Your task to perform on an android device: Go to display settings Image 0: 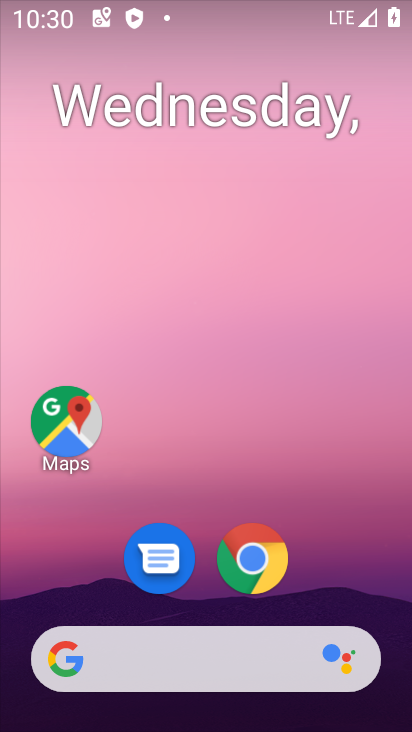
Step 0: drag from (14, 560) to (250, 95)
Your task to perform on an android device: Go to display settings Image 1: 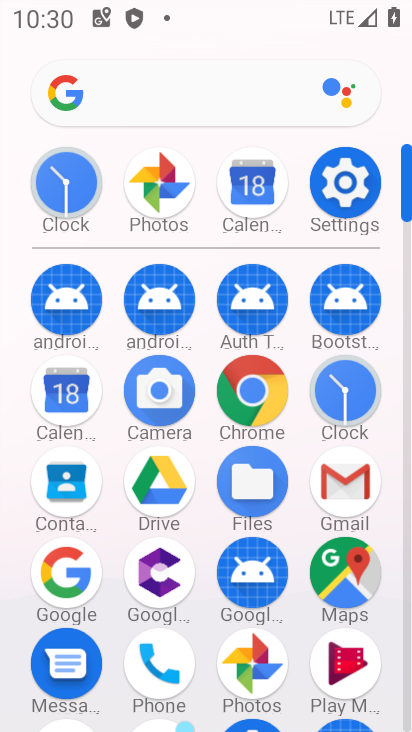
Step 1: click (328, 186)
Your task to perform on an android device: Go to display settings Image 2: 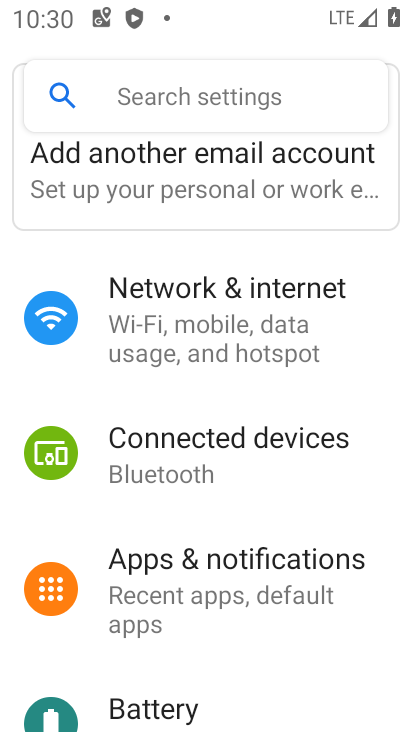
Step 2: drag from (50, 683) to (270, 173)
Your task to perform on an android device: Go to display settings Image 3: 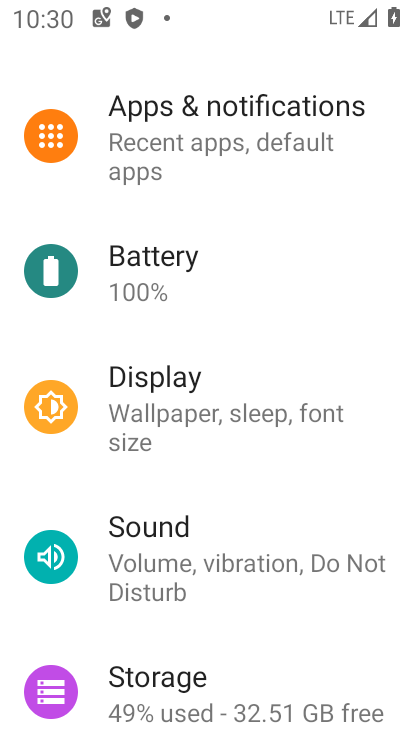
Step 3: click (139, 359)
Your task to perform on an android device: Go to display settings Image 4: 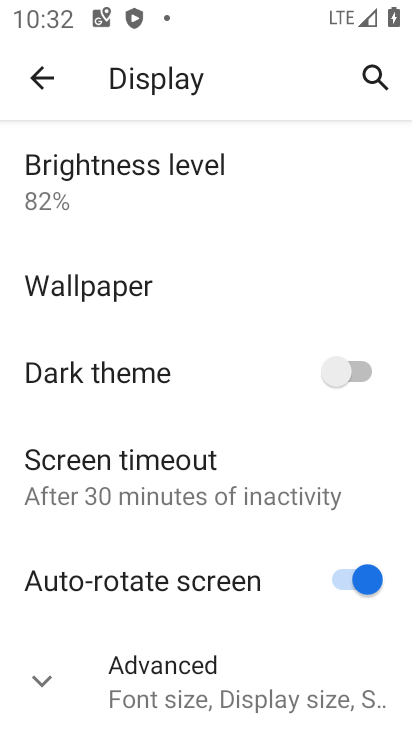
Step 4: task complete